Your task to perform on an android device: toggle notifications settings in the gmail app Image 0: 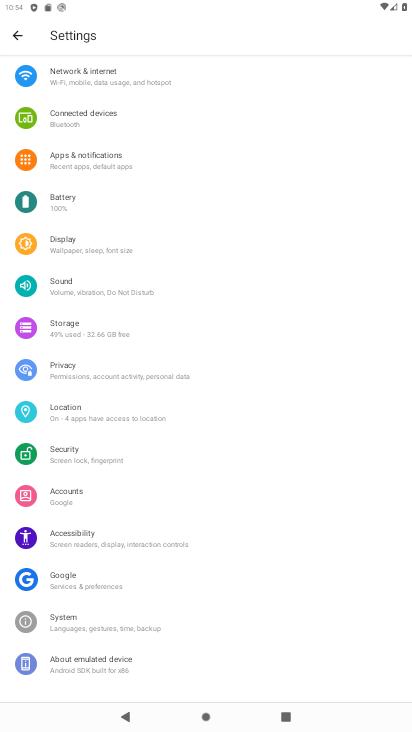
Step 0: press home button
Your task to perform on an android device: toggle notifications settings in the gmail app Image 1: 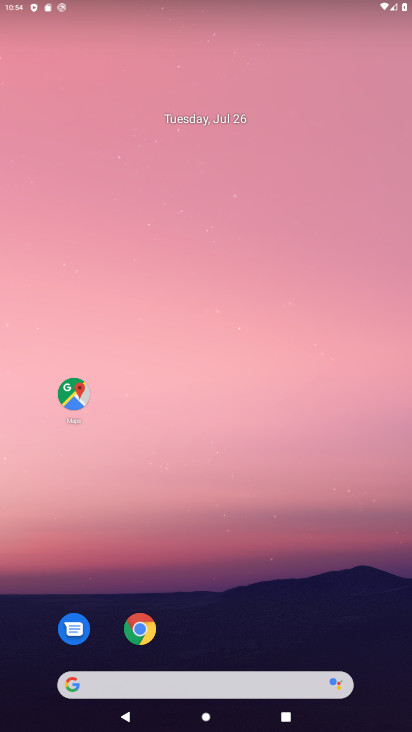
Step 1: drag from (247, 605) to (247, 2)
Your task to perform on an android device: toggle notifications settings in the gmail app Image 2: 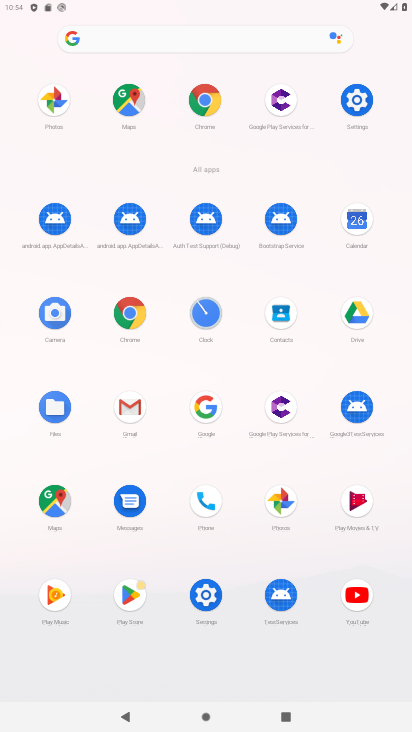
Step 2: click (131, 396)
Your task to perform on an android device: toggle notifications settings in the gmail app Image 3: 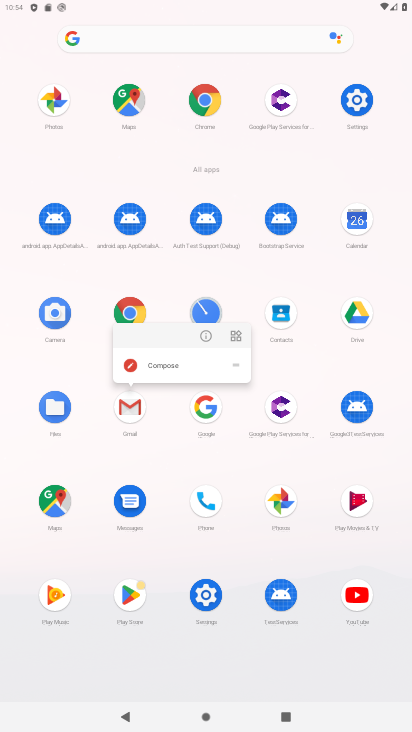
Step 3: click (201, 339)
Your task to perform on an android device: toggle notifications settings in the gmail app Image 4: 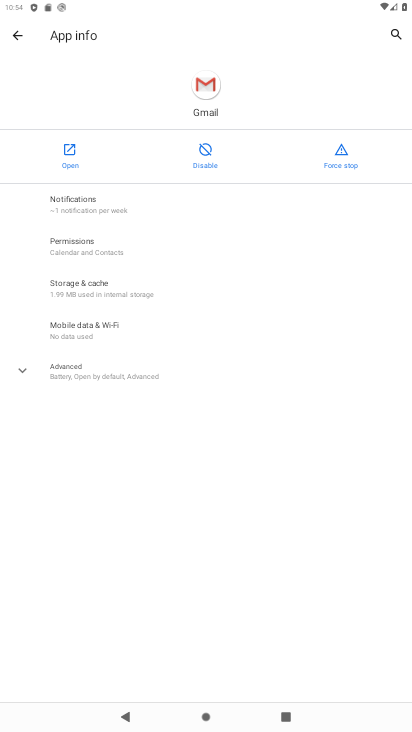
Step 4: click (121, 201)
Your task to perform on an android device: toggle notifications settings in the gmail app Image 5: 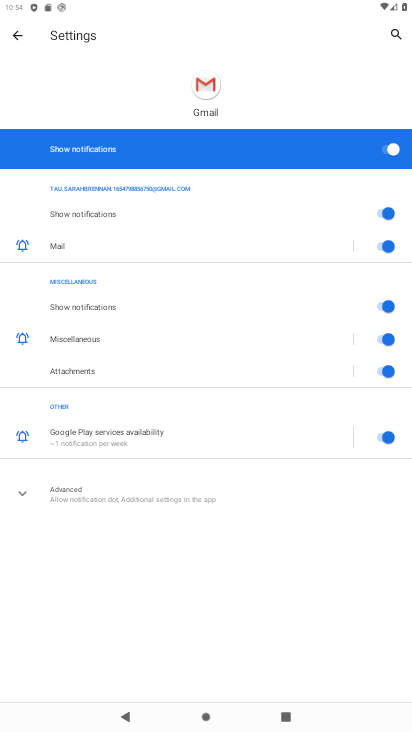
Step 5: click (127, 493)
Your task to perform on an android device: toggle notifications settings in the gmail app Image 6: 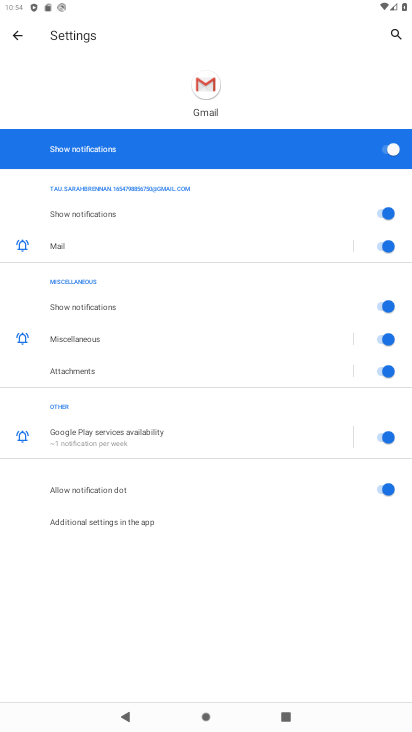
Step 6: click (300, 146)
Your task to perform on an android device: toggle notifications settings in the gmail app Image 7: 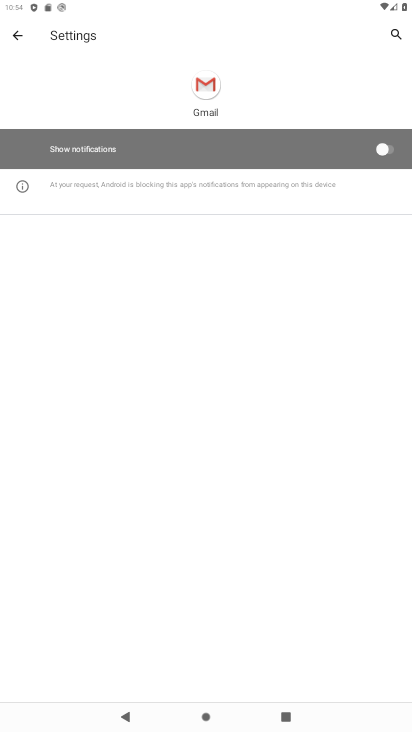
Step 7: task complete